Your task to perform on an android device: Open calendar and show me the third week of next month Image 0: 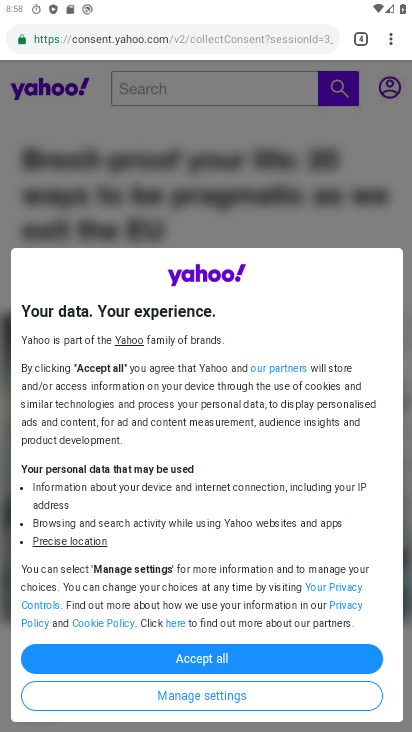
Step 0: drag from (198, 564) to (260, 197)
Your task to perform on an android device: Open calendar and show me the third week of next month Image 1: 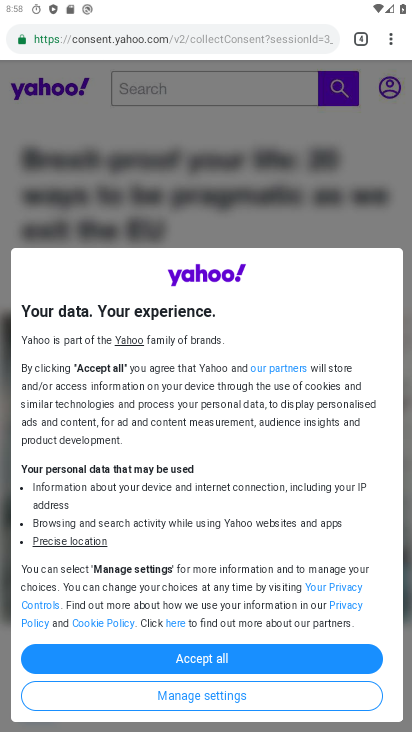
Step 1: press home button
Your task to perform on an android device: Open calendar and show me the third week of next month Image 2: 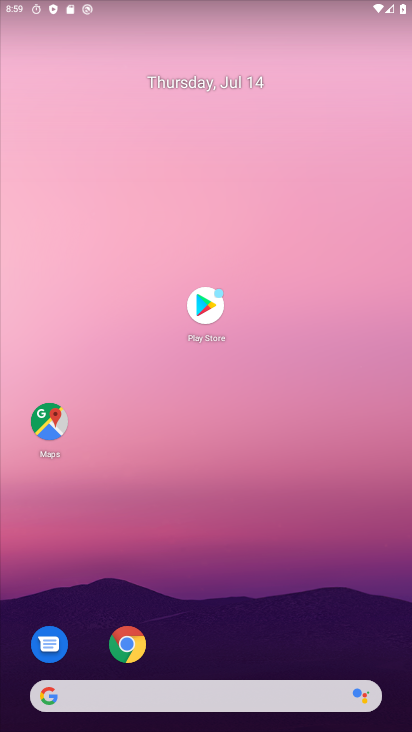
Step 2: drag from (237, 612) to (236, 141)
Your task to perform on an android device: Open calendar and show me the third week of next month Image 3: 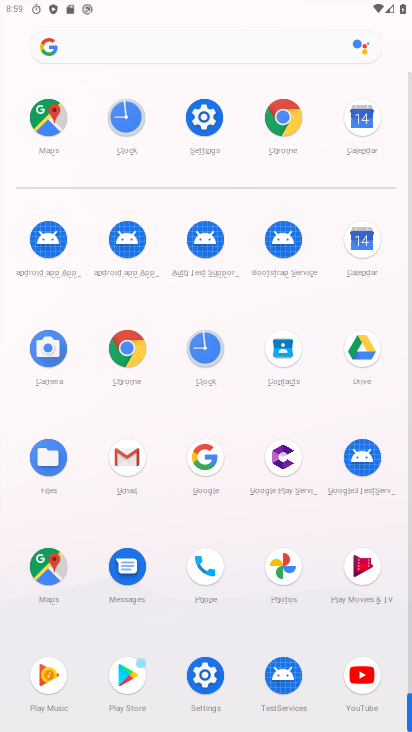
Step 3: click (357, 247)
Your task to perform on an android device: Open calendar and show me the third week of next month Image 4: 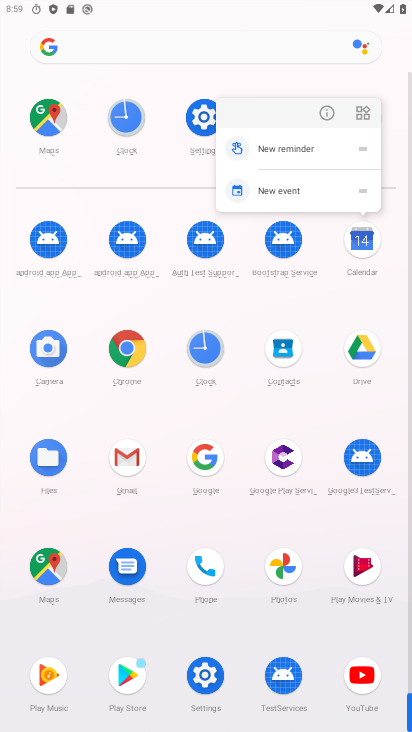
Step 4: click (325, 113)
Your task to perform on an android device: Open calendar and show me the third week of next month Image 5: 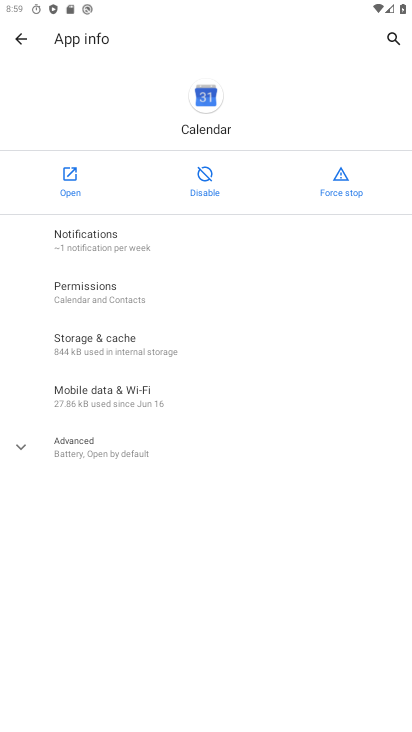
Step 5: click (61, 184)
Your task to perform on an android device: Open calendar and show me the third week of next month Image 6: 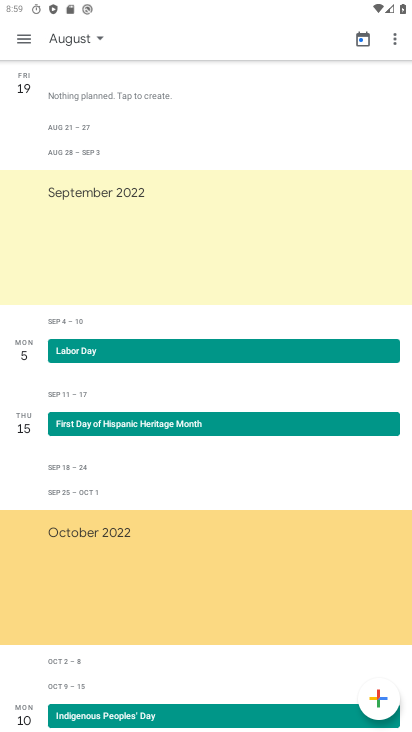
Step 6: click (77, 43)
Your task to perform on an android device: Open calendar and show me the third week of next month Image 7: 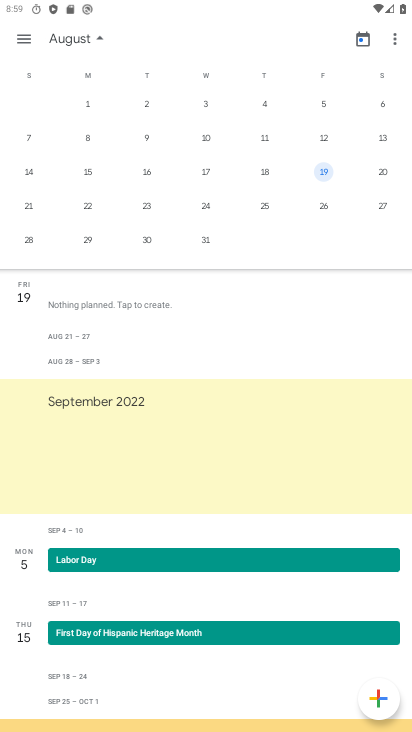
Step 7: click (197, 167)
Your task to perform on an android device: Open calendar and show me the third week of next month Image 8: 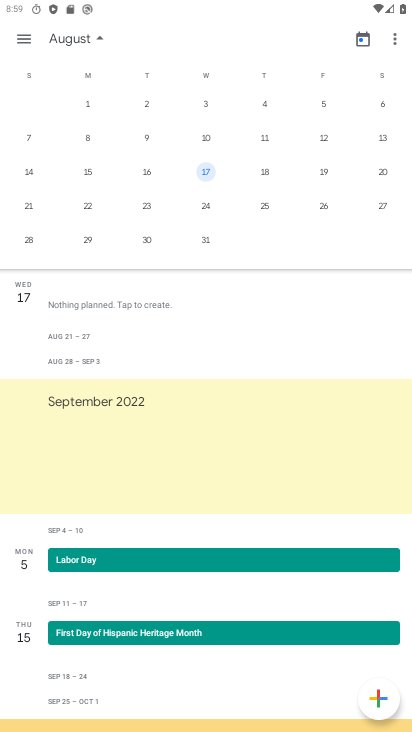
Step 8: task complete